Your task to perform on an android device: What's on my calendar today? Image 0: 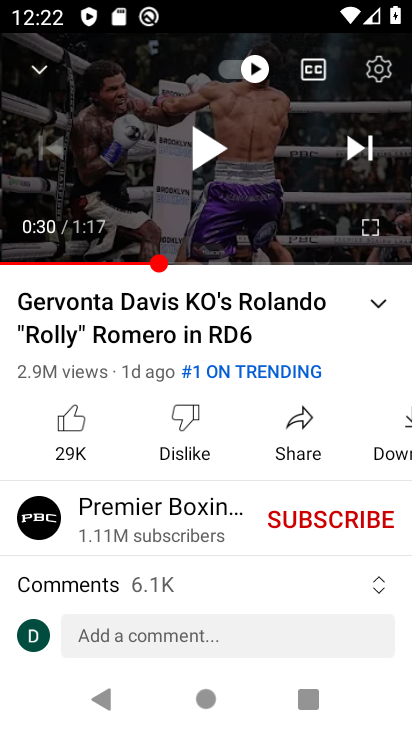
Step 0: press home button
Your task to perform on an android device: What's on my calendar today? Image 1: 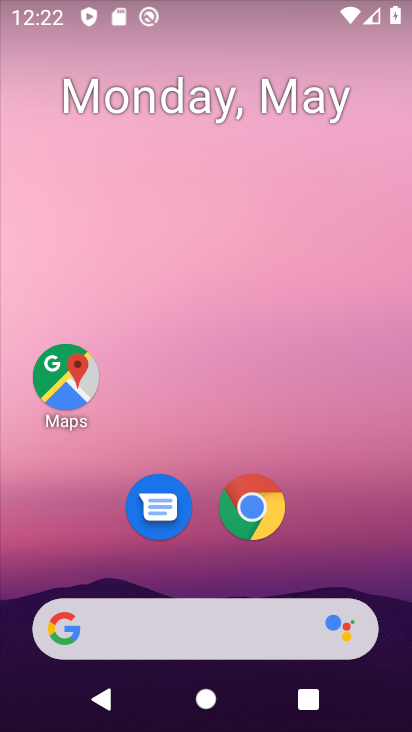
Step 1: drag from (231, 728) to (231, 40)
Your task to perform on an android device: What's on my calendar today? Image 2: 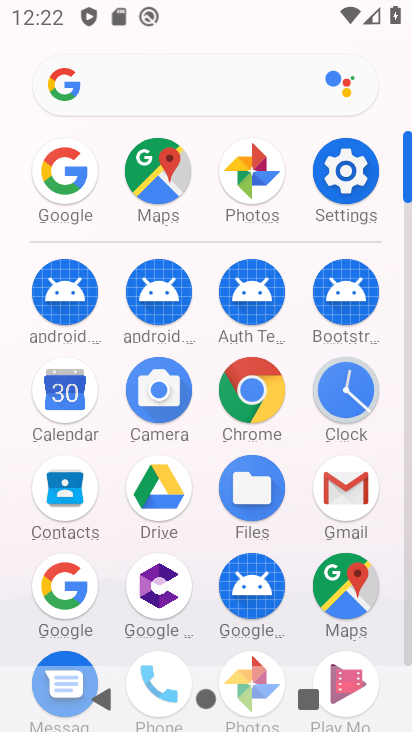
Step 2: click (66, 404)
Your task to perform on an android device: What's on my calendar today? Image 3: 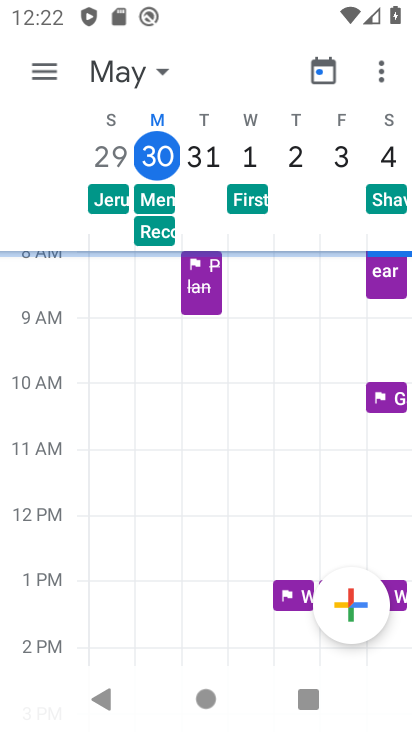
Step 3: click (152, 151)
Your task to perform on an android device: What's on my calendar today? Image 4: 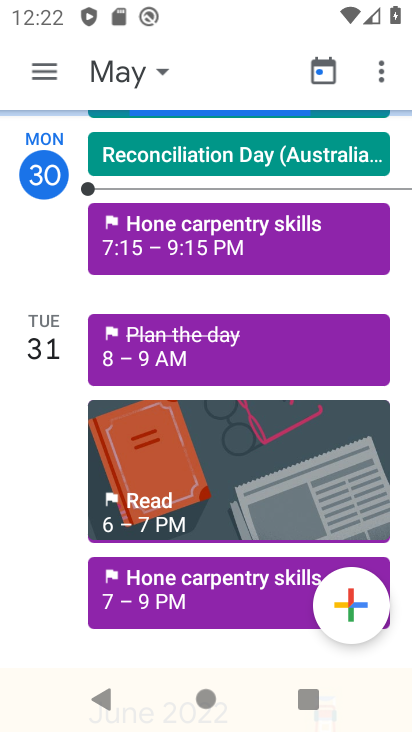
Step 4: task complete